Your task to perform on an android device: turn on location history Image 0: 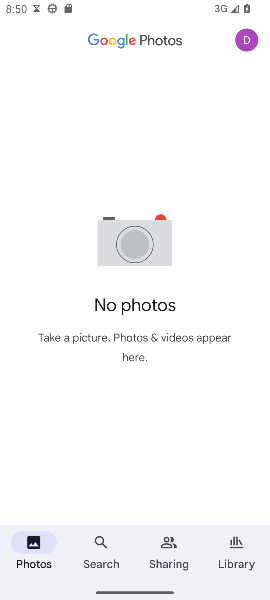
Step 0: press home button
Your task to perform on an android device: turn on location history Image 1: 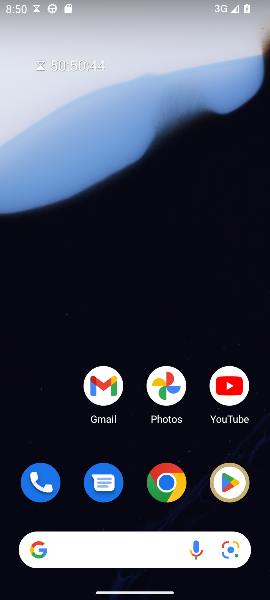
Step 1: drag from (131, 485) to (111, 14)
Your task to perform on an android device: turn on location history Image 2: 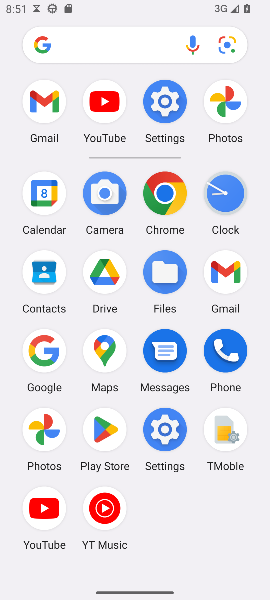
Step 2: click (162, 98)
Your task to perform on an android device: turn on location history Image 3: 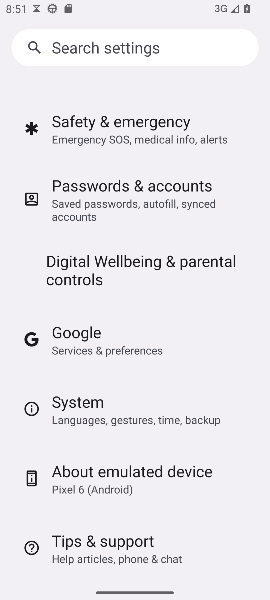
Step 3: drag from (102, 456) to (204, 532)
Your task to perform on an android device: turn on location history Image 4: 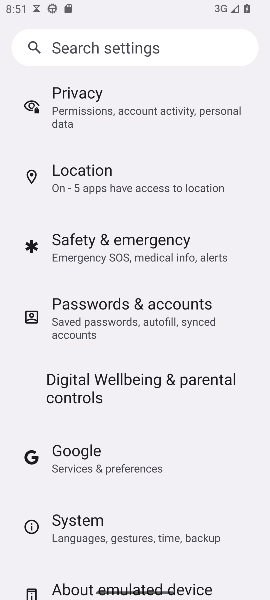
Step 4: click (61, 195)
Your task to perform on an android device: turn on location history Image 5: 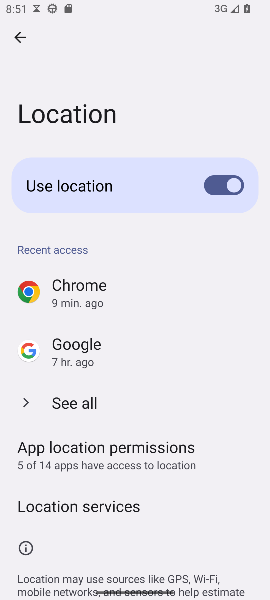
Step 5: task complete